Your task to perform on an android device: turn on data saver in the chrome app Image 0: 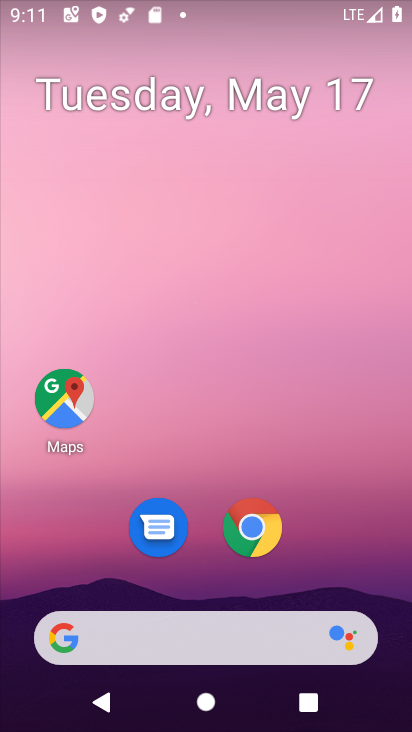
Step 0: click (256, 540)
Your task to perform on an android device: turn on data saver in the chrome app Image 1: 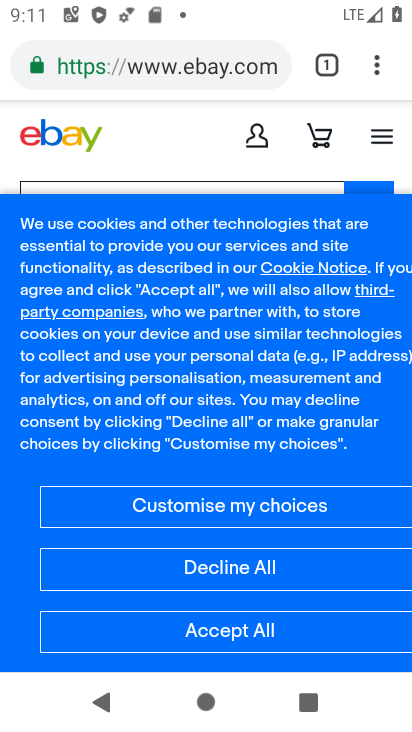
Step 1: drag from (375, 66) to (256, 578)
Your task to perform on an android device: turn on data saver in the chrome app Image 2: 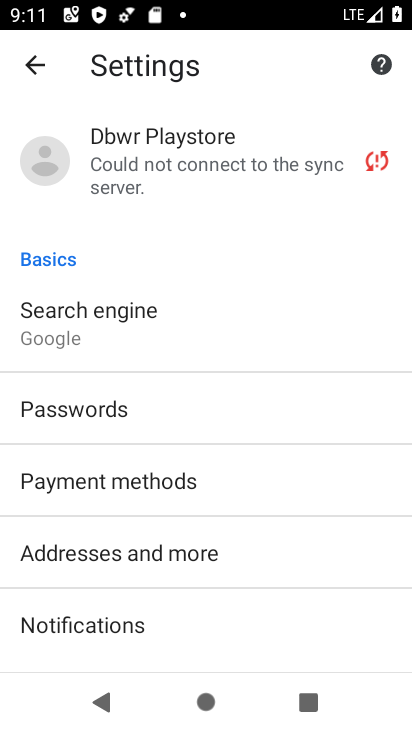
Step 2: drag from (208, 648) to (358, 34)
Your task to perform on an android device: turn on data saver in the chrome app Image 3: 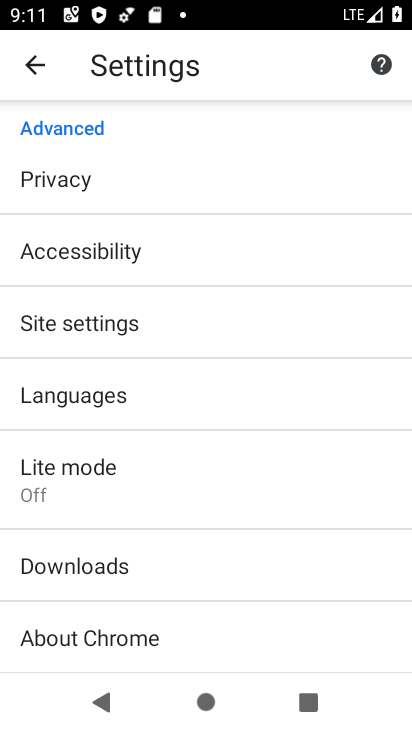
Step 3: click (80, 496)
Your task to perform on an android device: turn on data saver in the chrome app Image 4: 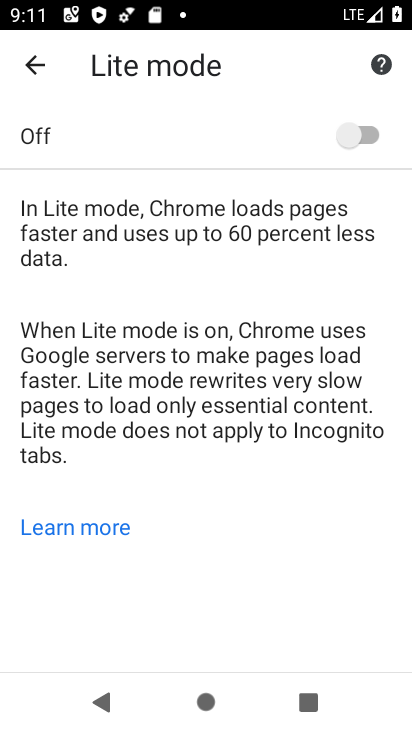
Step 4: click (363, 142)
Your task to perform on an android device: turn on data saver in the chrome app Image 5: 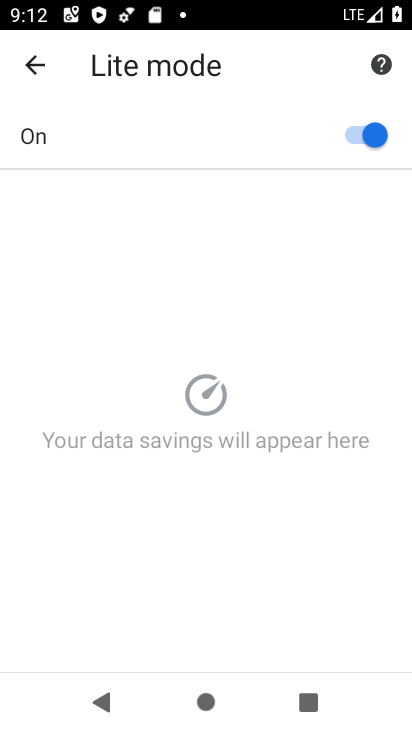
Step 5: task complete